Your task to perform on an android device: find which apps use the phone's location Image 0: 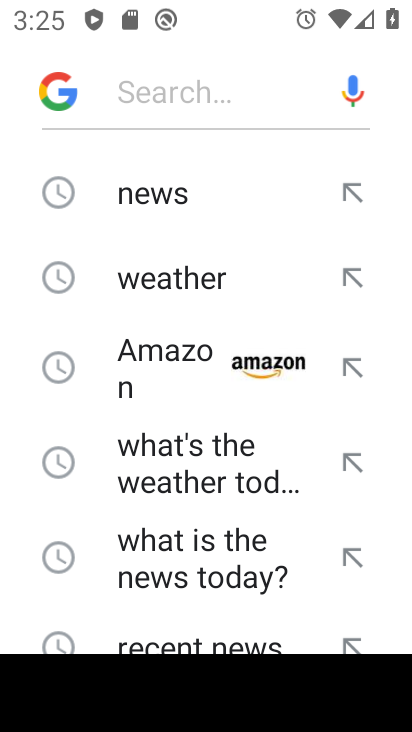
Step 0: press home button
Your task to perform on an android device: find which apps use the phone's location Image 1: 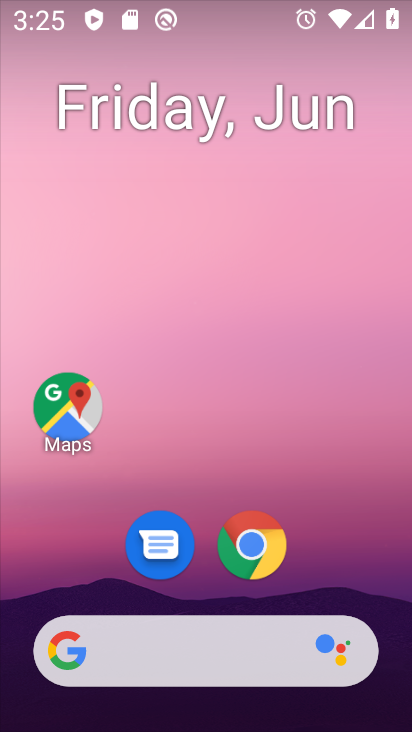
Step 1: drag from (314, 531) to (330, 0)
Your task to perform on an android device: find which apps use the phone's location Image 2: 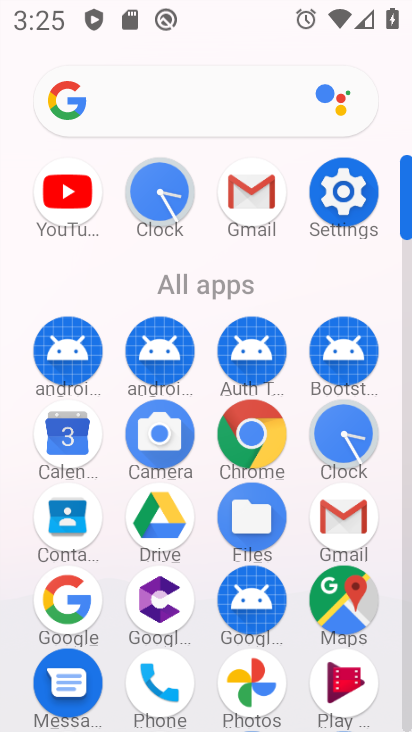
Step 2: click (329, 196)
Your task to perform on an android device: find which apps use the phone's location Image 3: 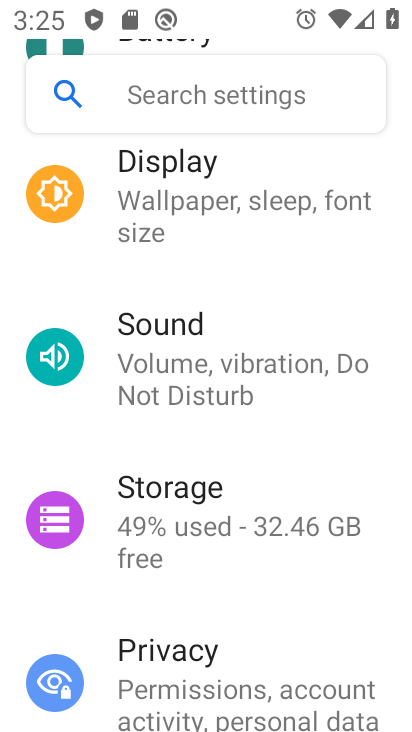
Step 3: drag from (161, 675) to (227, 252)
Your task to perform on an android device: find which apps use the phone's location Image 4: 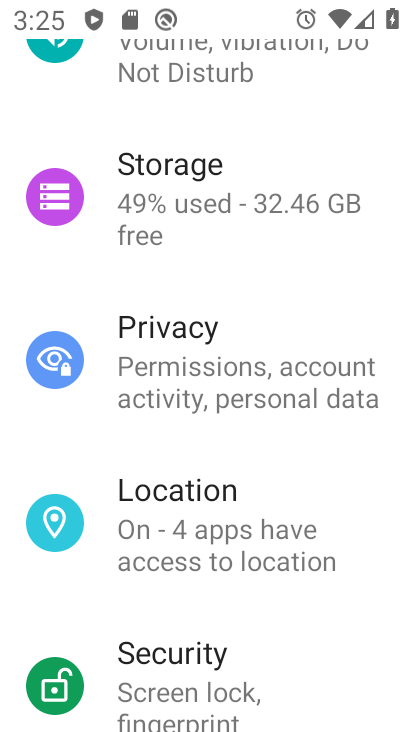
Step 4: click (189, 502)
Your task to perform on an android device: find which apps use the phone's location Image 5: 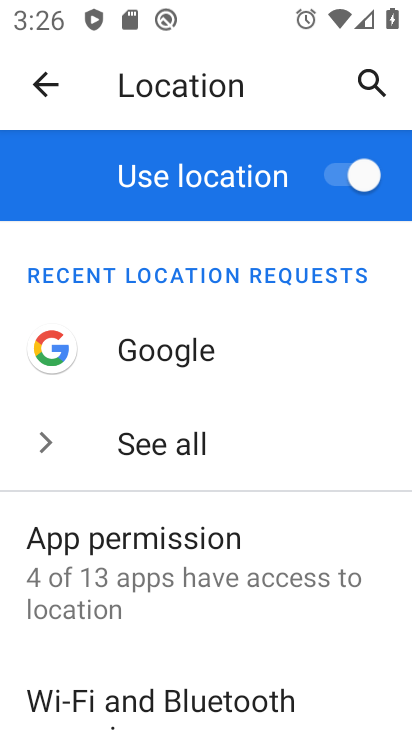
Step 5: click (172, 587)
Your task to perform on an android device: find which apps use the phone's location Image 6: 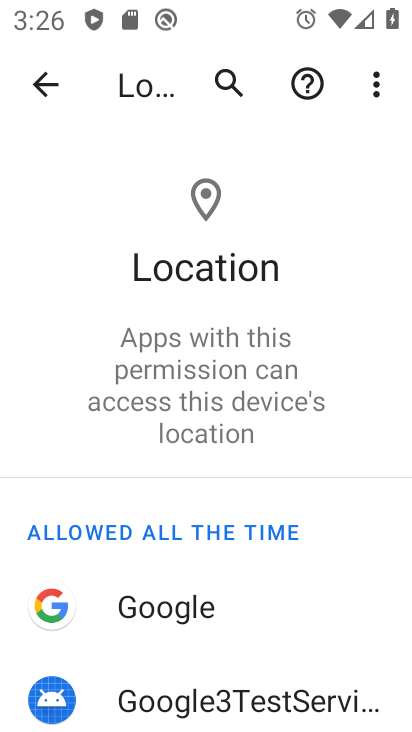
Step 6: task complete